Your task to perform on an android device: Open Google Maps Image 0: 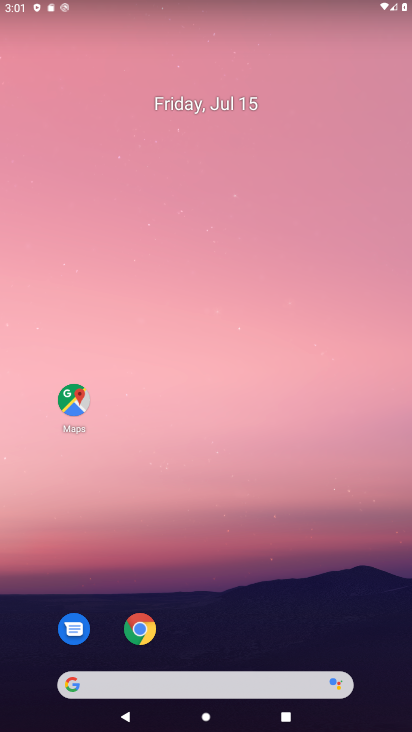
Step 0: click (198, 33)
Your task to perform on an android device: Open Google Maps Image 1: 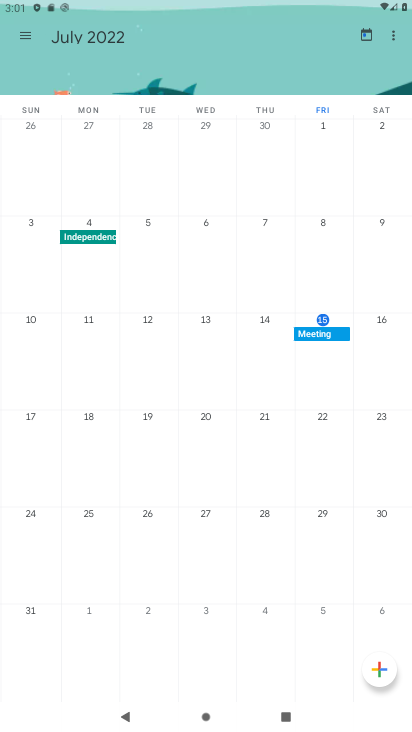
Step 1: drag from (225, 394) to (117, 31)
Your task to perform on an android device: Open Google Maps Image 2: 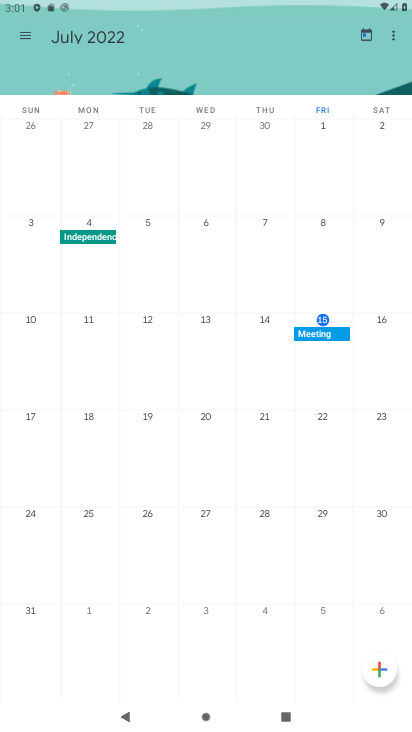
Step 2: press back button
Your task to perform on an android device: Open Google Maps Image 3: 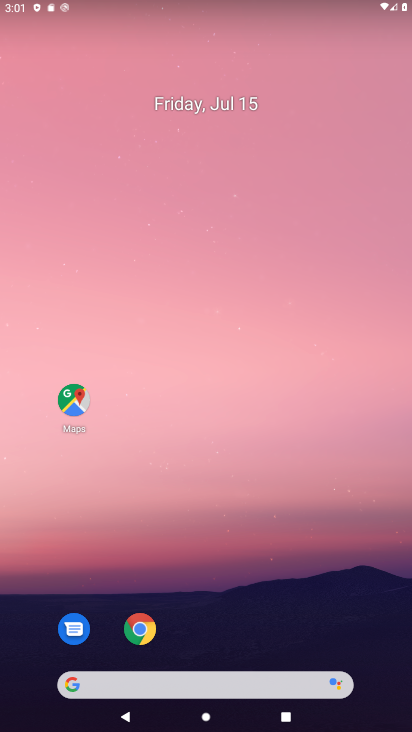
Step 3: drag from (218, 445) to (229, 118)
Your task to perform on an android device: Open Google Maps Image 4: 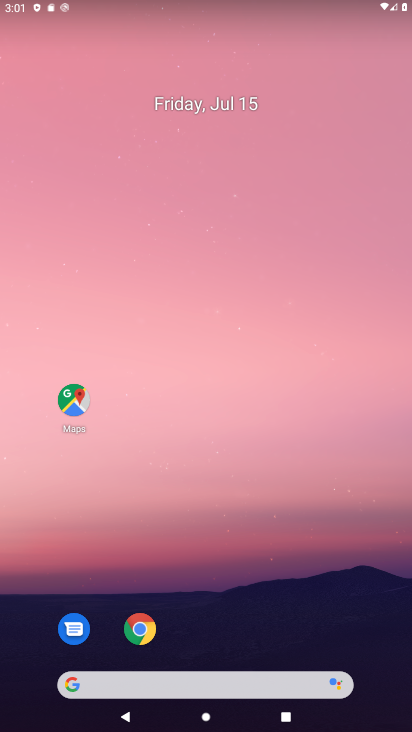
Step 4: drag from (152, 531) to (89, 0)
Your task to perform on an android device: Open Google Maps Image 5: 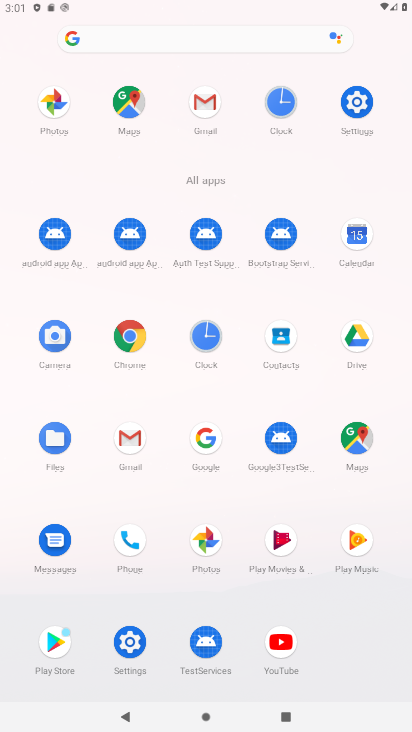
Step 5: click (361, 431)
Your task to perform on an android device: Open Google Maps Image 6: 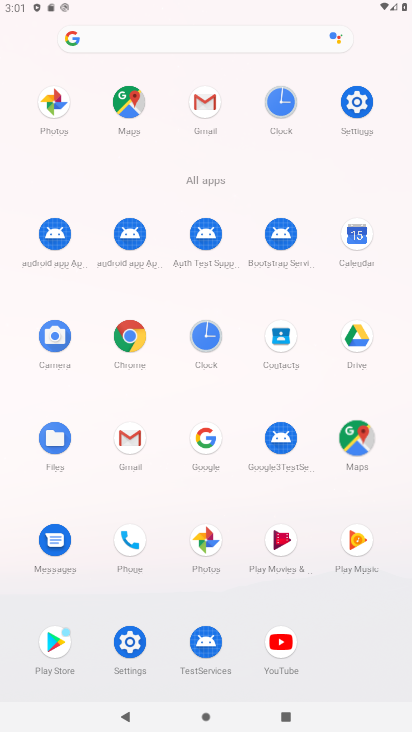
Step 6: click (361, 431)
Your task to perform on an android device: Open Google Maps Image 7: 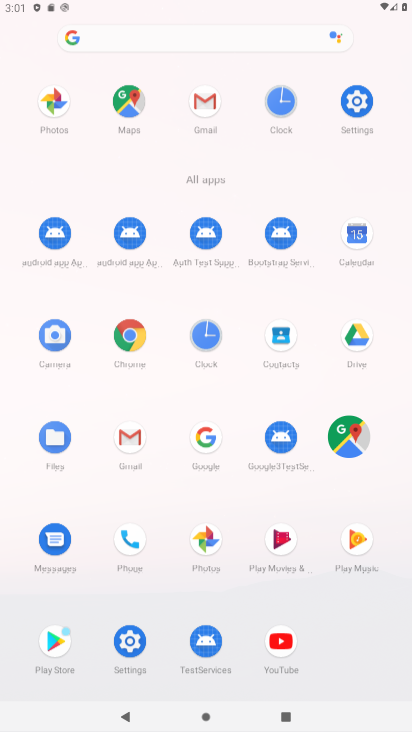
Step 7: click (361, 431)
Your task to perform on an android device: Open Google Maps Image 8: 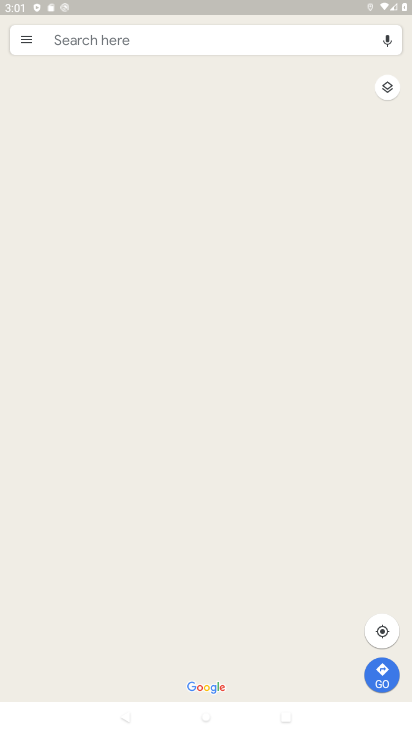
Step 8: task complete